Your task to perform on an android device: turn off notifications settings in the gmail app Image 0: 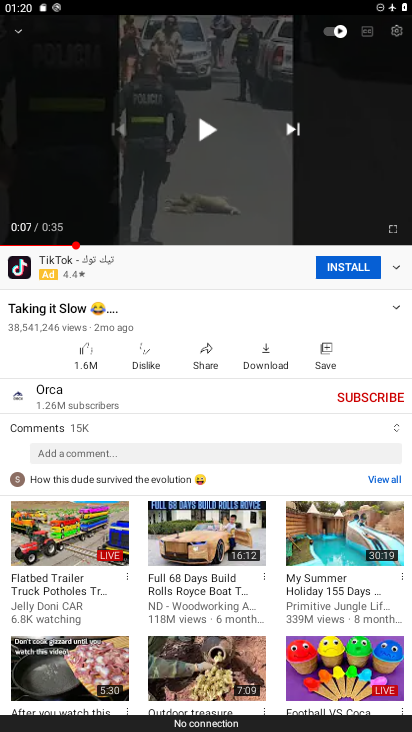
Step 0: press home button
Your task to perform on an android device: turn off notifications settings in the gmail app Image 1: 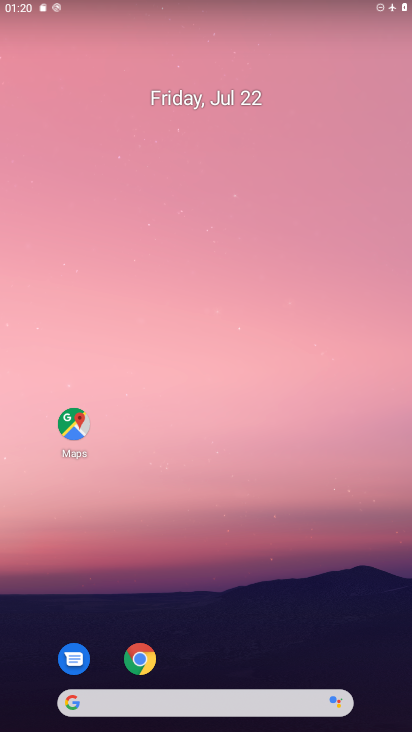
Step 1: drag from (206, 696) to (154, 181)
Your task to perform on an android device: turn off notifications settings in the gmail app Image 2: 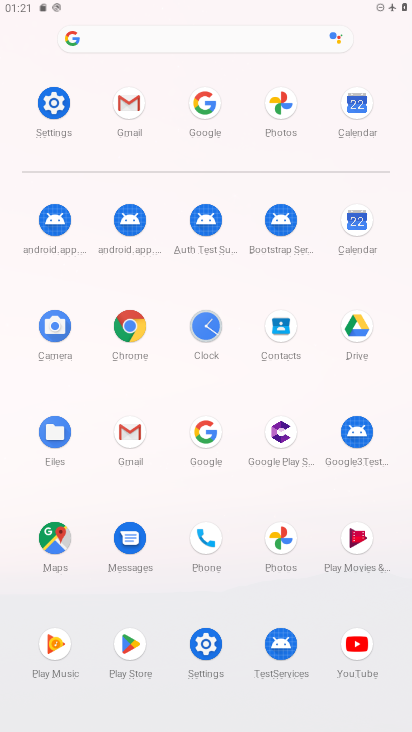
Step 2: click (131, 429)
Your task to perform on an android device: turn off notifications settings in the gmail app Image 3: 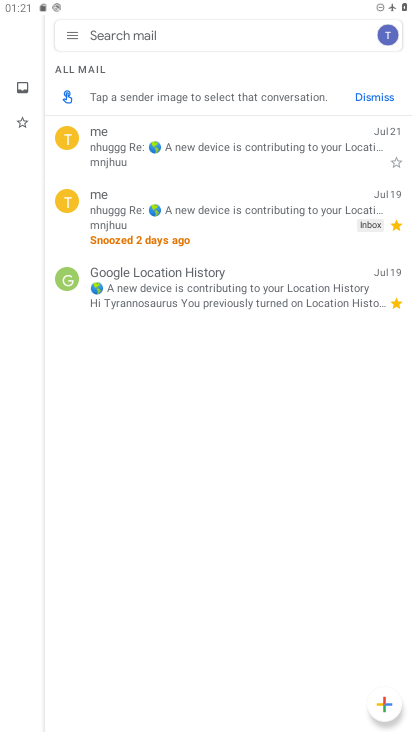
Step 3: click (69, 33)
Your task to perform on an android device: turn off notifications settings in the gmail app Image 4: 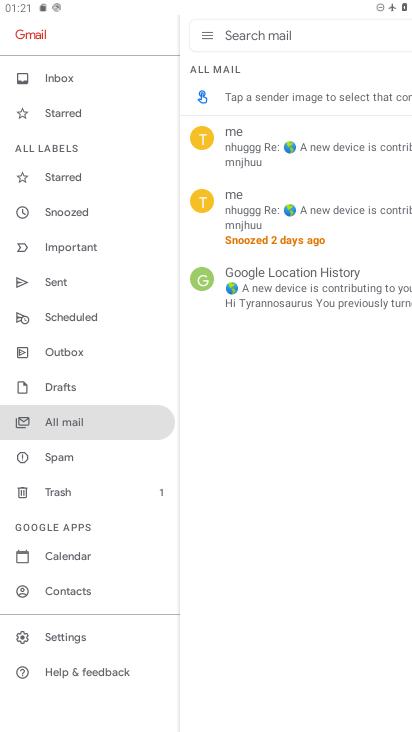
Step 4: click (64, 633)
Your task to perform on an android device: turn off notifications settings in the gmail app Image 5: 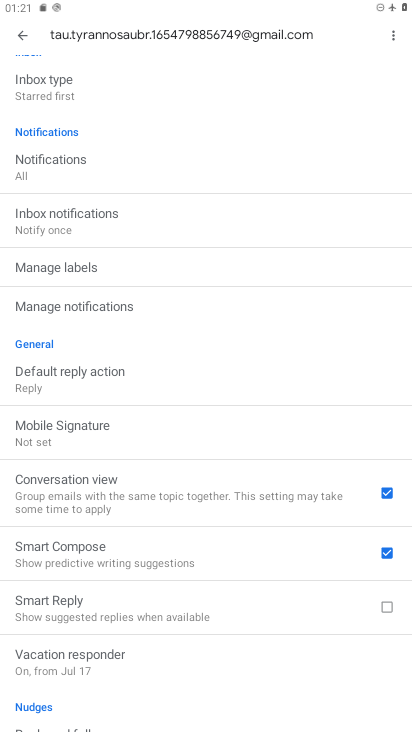
Step 5: click (75, 302)
Your task to perform on an android device: turn off notifications settings in the gmail app Image 6: 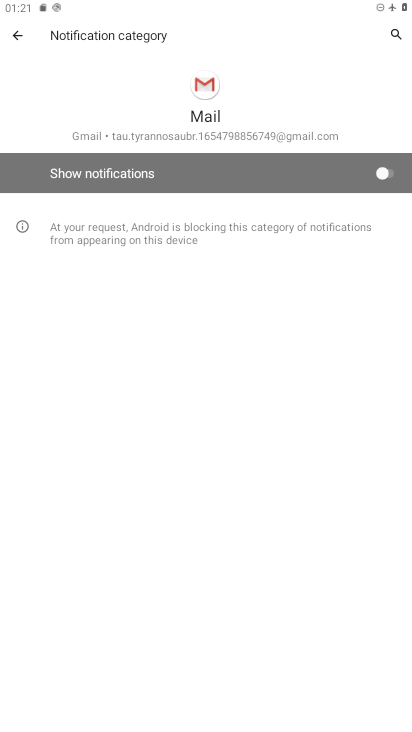
Step 6: task complete